Your task to perform on an android device: show emergency info Image 0: 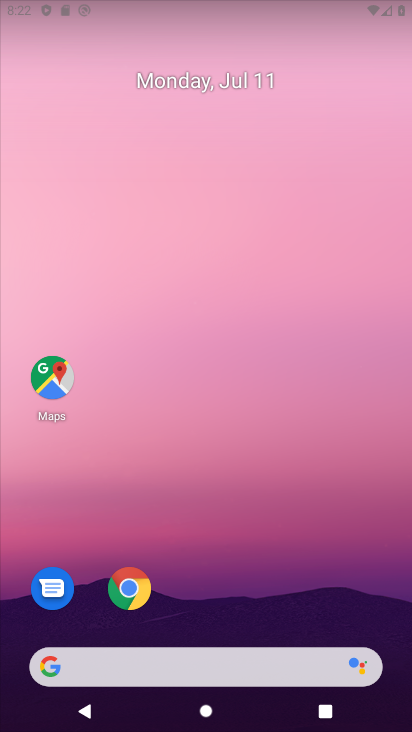
Step 0: drag from (151, 654) to (395, 14)
Your task to perform on an android device: show emergency info Image 1: 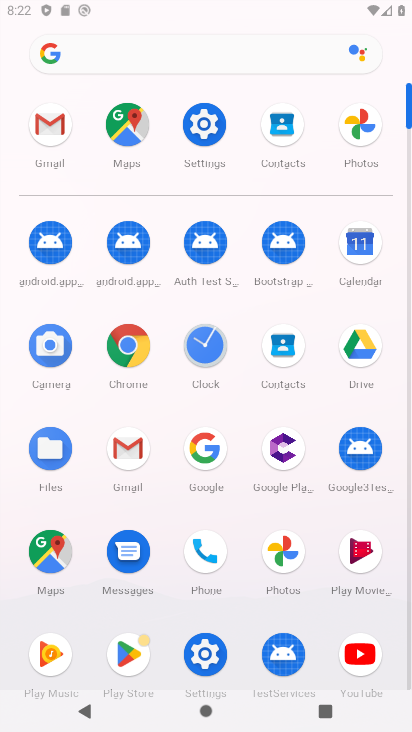
Step 1: click (205, 122)
Your task to perform on an android device: show emergency info Image 2: 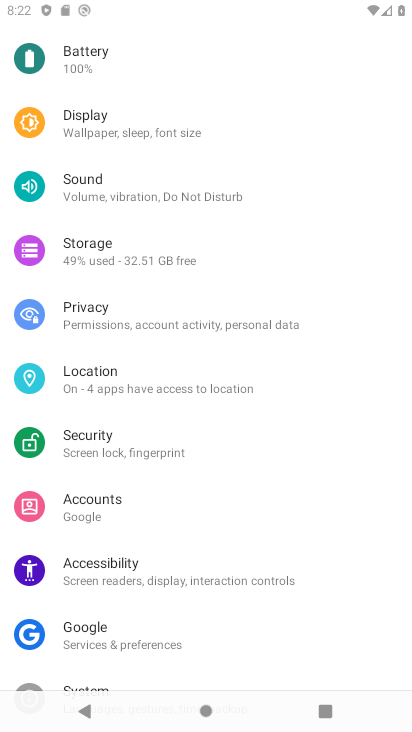
Step 2: drag from (243, 617) to (387, 31)
Your task to perform on an android device: show emergency info Image 3: 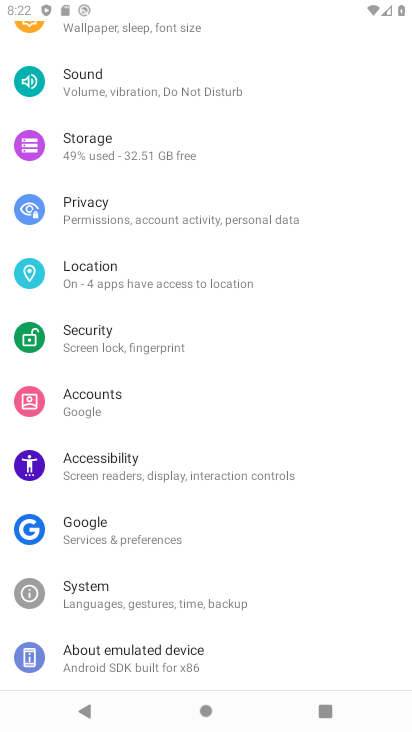
Step 3: click (142, 665)
Your task to perform on an android device: show emergency info Image 4: 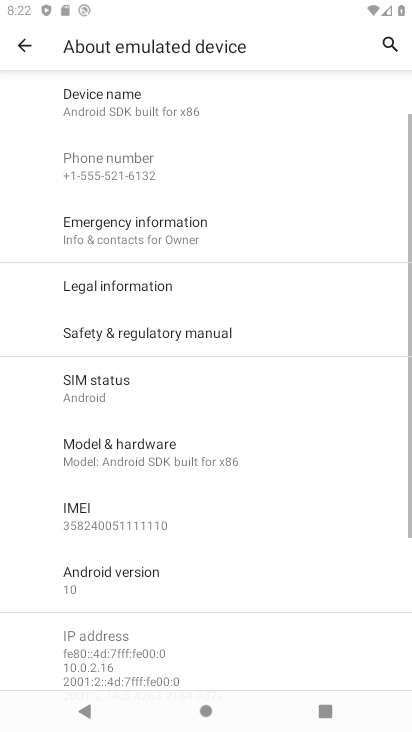
Step 4: click (233, 231)
Your task to perform on an android device: show emergency info Image 5: 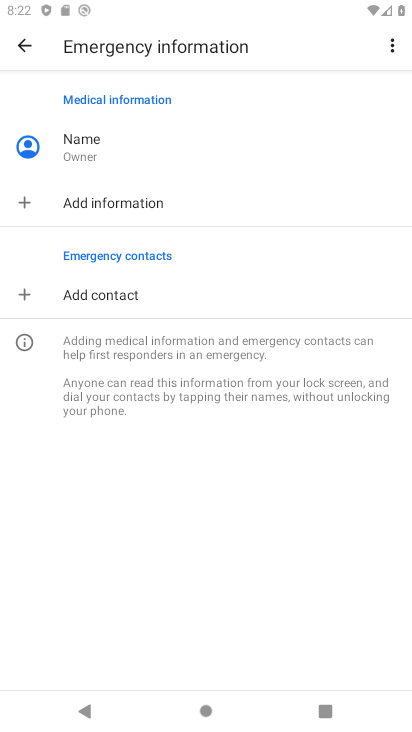
Step 5: task complete